Your task to perform on an android device: turn on translation in the chrome app Image 0: 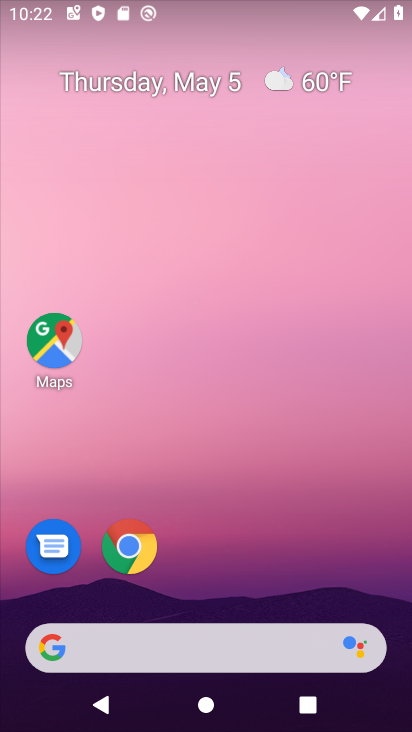
Step 0: click (125, 565)
Your task to perform on an android device: turn on translation in the chrome app Image 1: 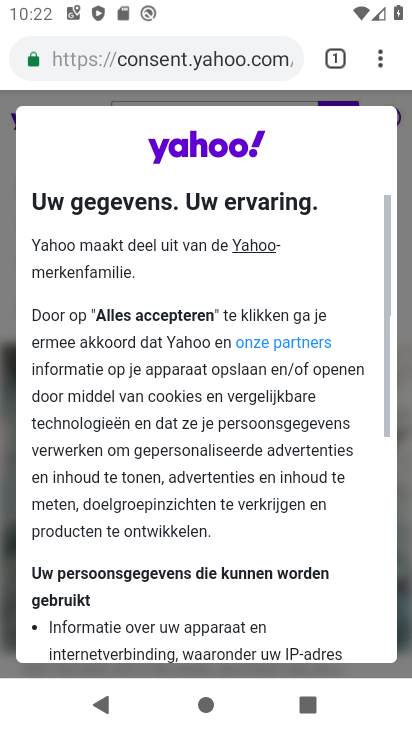
Step 1: click (377, 58)
Your task to perform on an android device: turn on translation in the chrome app Image 2: 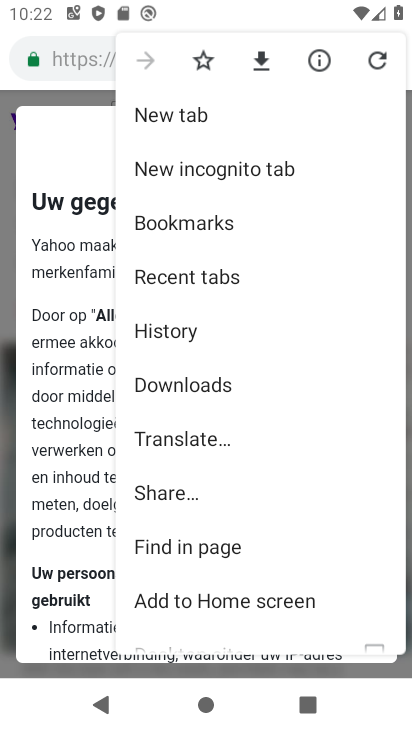
Step 2: drag from (311, 627) to (354, 410)
Your task to perform on an android device: turn on translation in the chrome app Image 3: 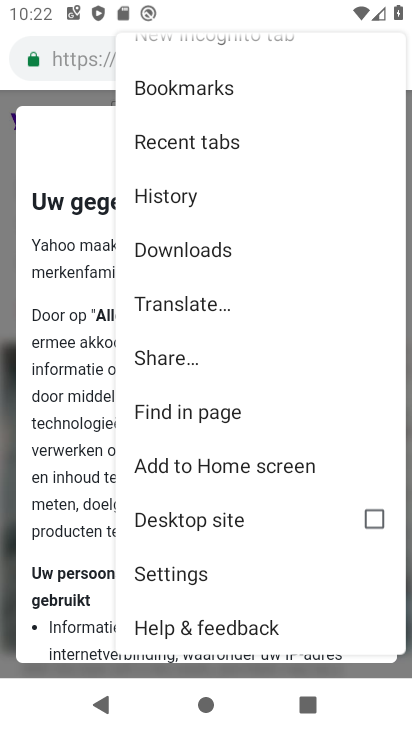
Step 3: click (201, 575)
Your task to perform on an android device: turn on translation in the chrome app Image 4: 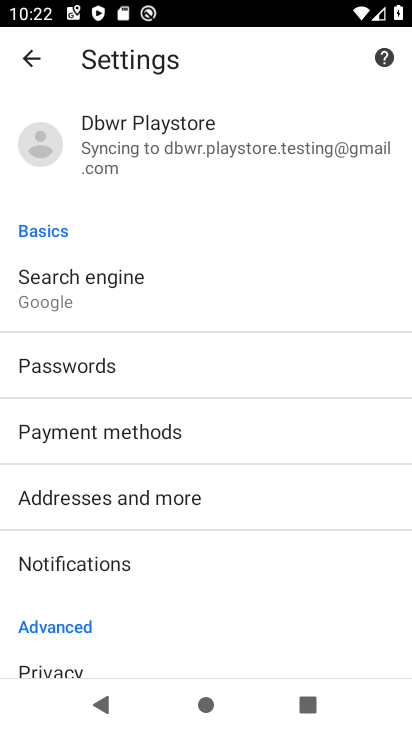
Step 4: drag from (191, 634) to (181, 518)
Your task to perform on an android device: turn on translation in the chrome app Image 5: 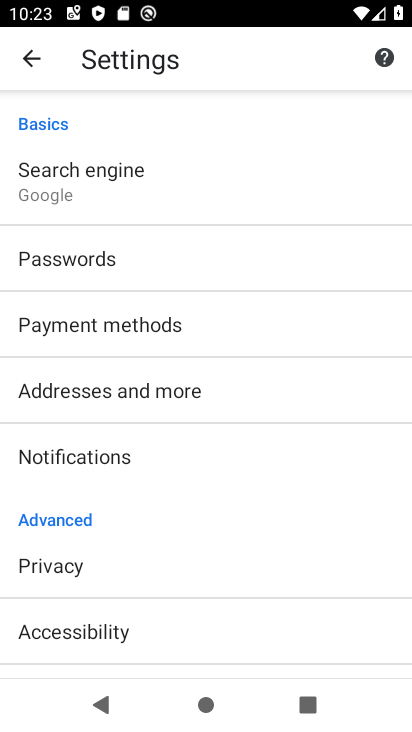
Step 5: drag from (168, 629) to (150, 535)
Your task to perform on an android device: turn on translation in the chrome app Image 6: 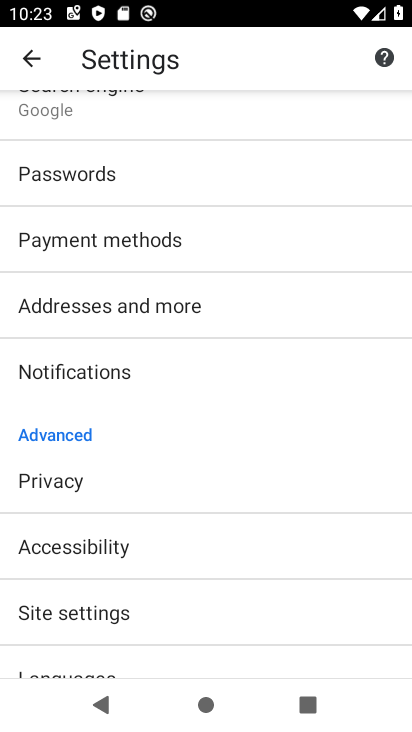
Step 6: drag from (138, 644) to (122, 551)
Your task to perform on an android device: turn on translation in the chrome app Image 7: 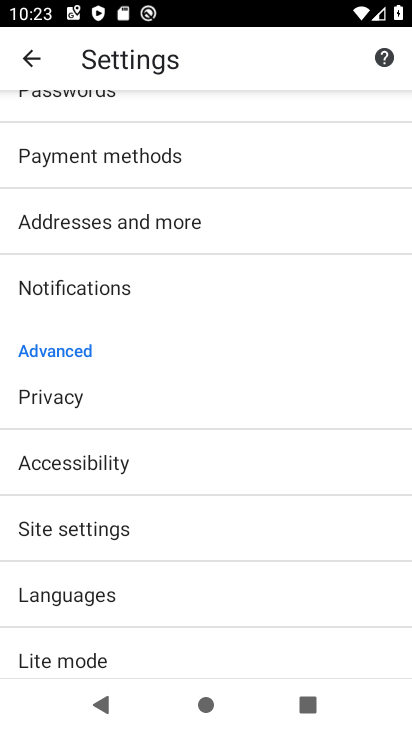
Step 7: click (108, 607)
Your task to perform on an android device: turn on translation in the chrome app Image 8: 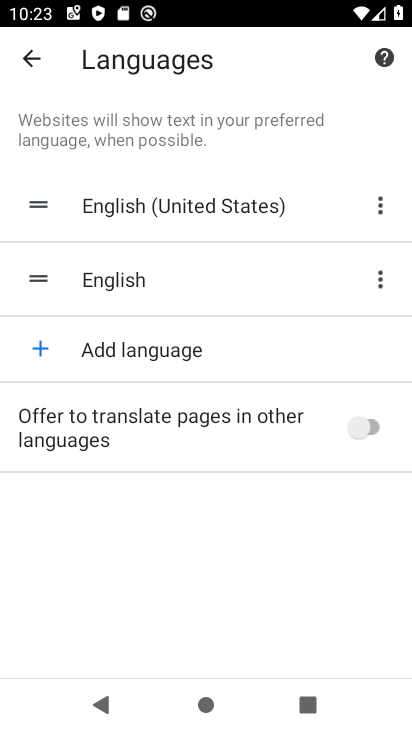
Step 8: click (361, 428)
Your task to perform on an android device: turn on translation in the chrome app Image 9: 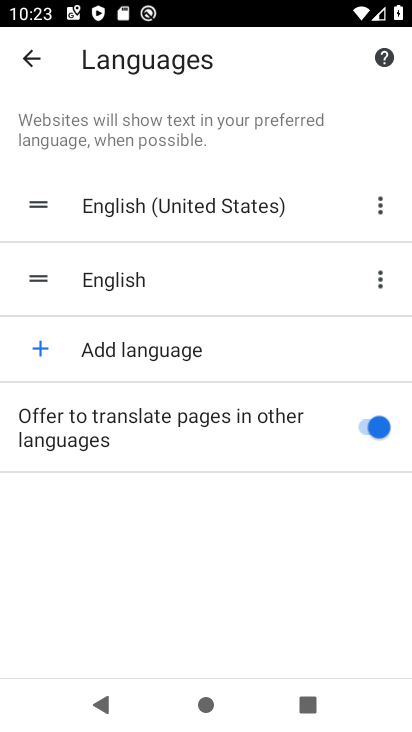
Step 9: task complete